Your task to perform on an android device: clear history in the chrome app Image 0: 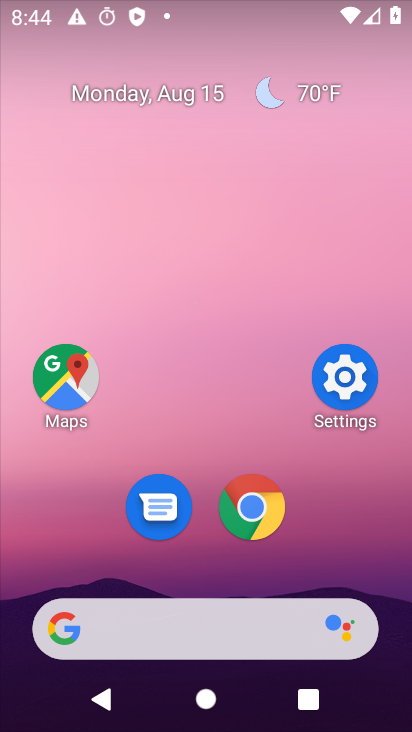
Step 0: click (250, 505)
Your task to perform on an android device: clear history in the chrome app Image 1: 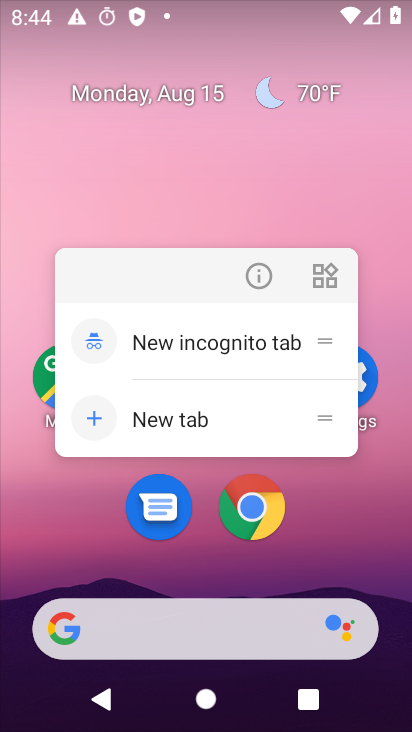
Step 1: click (257, 515)
Your task to perform on an android device: clear history in the chrome app Image 2: 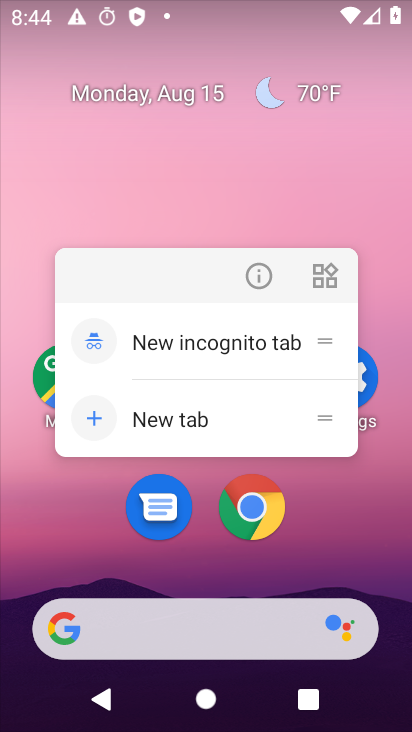
Step 2: click (257, 515)
Your task to perform on an android device: clear history in the chrome app Image 3: 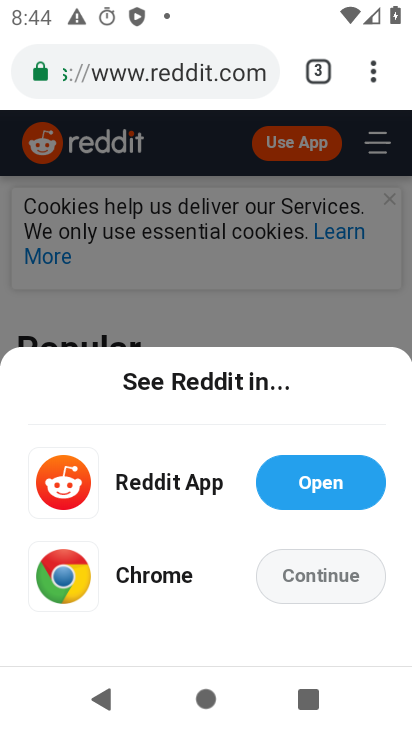
Step 3: drag from (376, 68) to (129, 396)
Your task to perform on an android device: clear history in the chrome app Image 4: 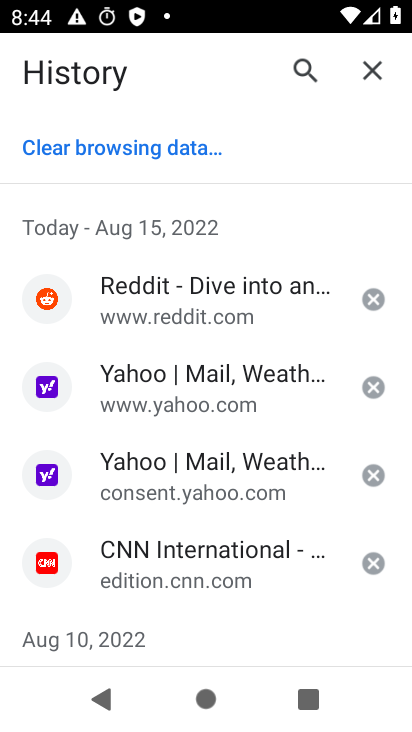
Step 4: click (161, 153)
Your task to perform on an android device: clear history in the chrome app Image 5: 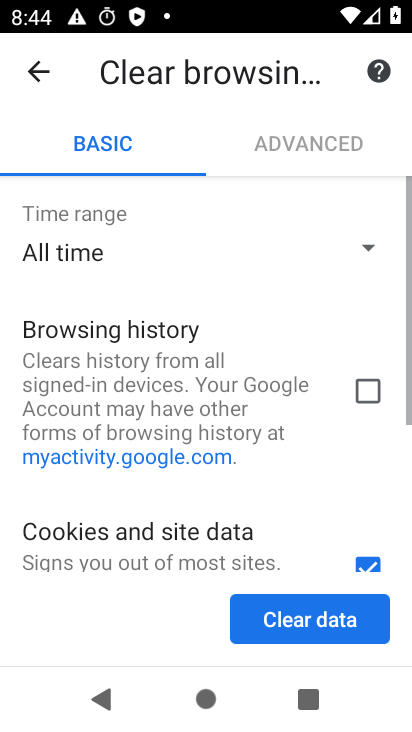
Step 5: click (365, 390)
Your task to perform on an android device: clear history in the chrome app Image 6: 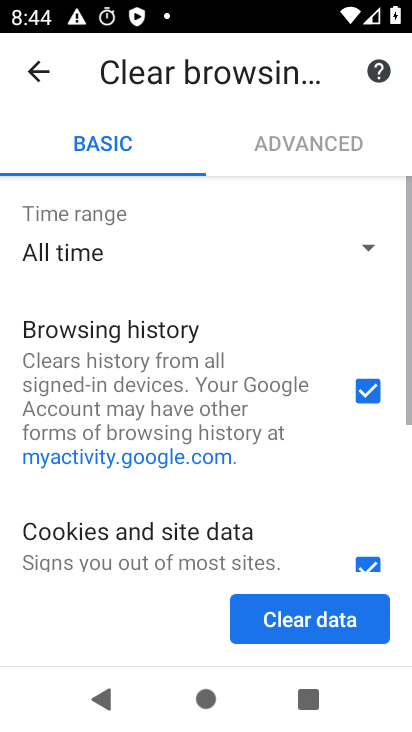
Step 6: drag from (267, 517) to (291, 159)
Your task to perform on an android device: clear history in the chrome app Image 7: 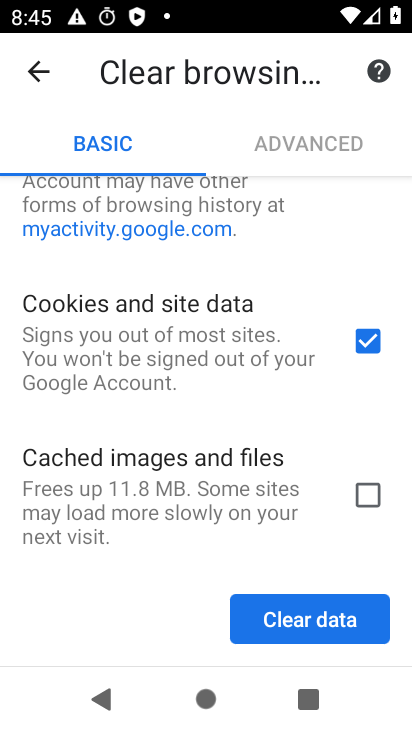
Step 7: click (365, 492)
Your task to perform on an android device: clear history in the chrome app Image 8: 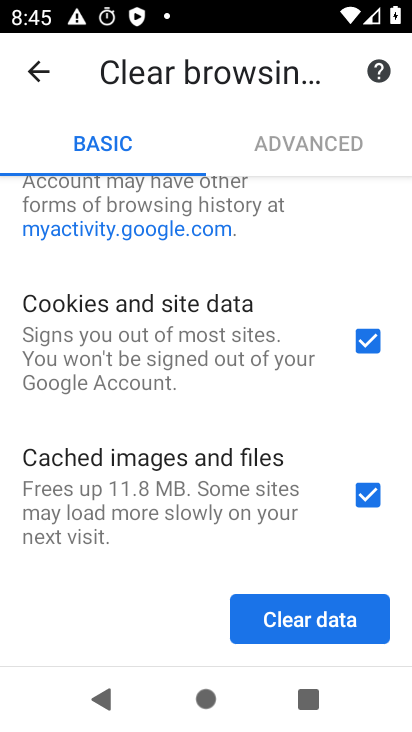
Step 8: click (330, 618)
Your task to perform on an android device: clear history in the chrome app Image 9: 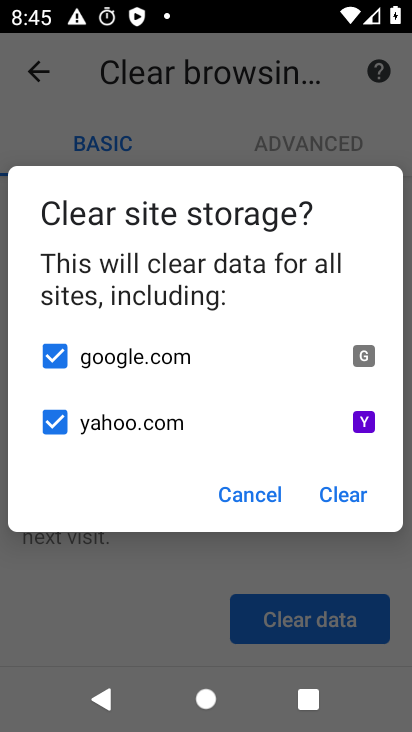
Step 9: click (349, 497)
Your task to perform on an android device: clear history in the chrome app Image 10: 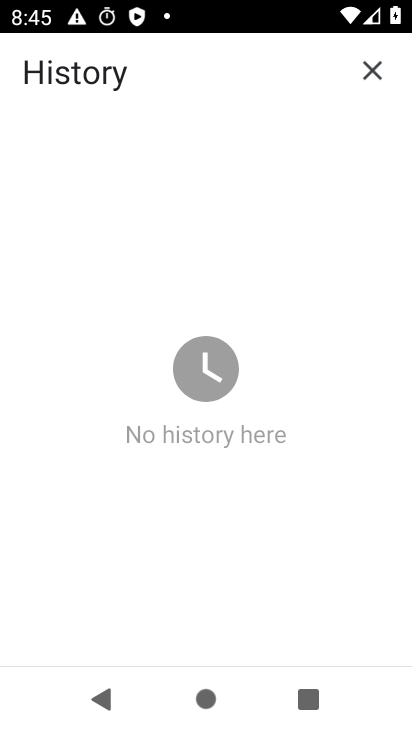
Step 10: task complete